Your task to perform on an android device: turn on airplane mode Image 0: 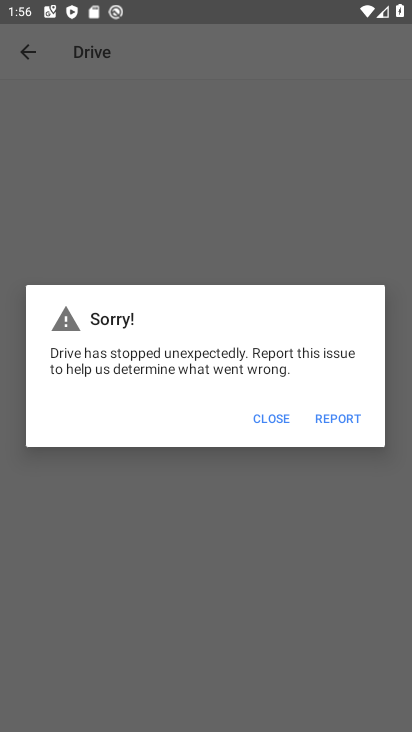
Step 0: drag from (293, 614) to (327, 107)
Your task to perform on an android device: turn on airplane mode Image 1: 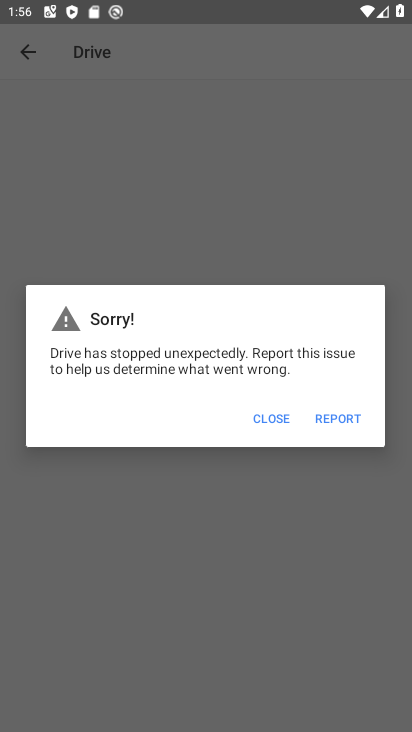
Step 1: press home button
Your task to perform on an android device: turn on airplane mode Image 2: 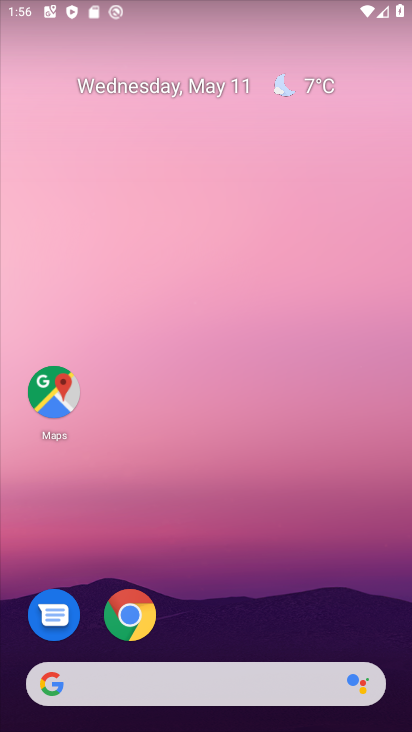
Step 2: drag from (265, 5) to (345, 636)
Your task to perform on an android device: turn on airplane mode Image 3: 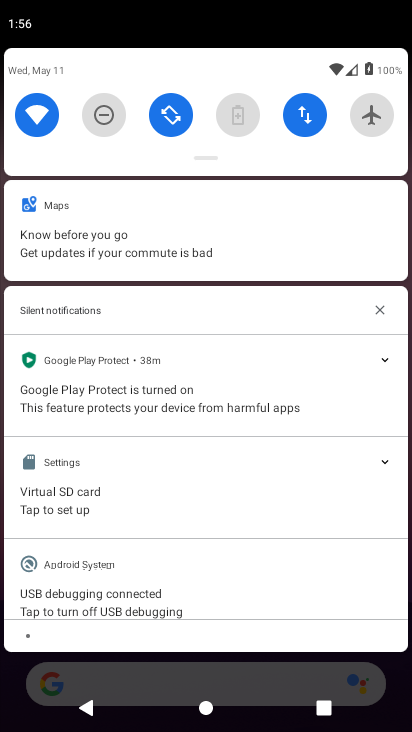
Step 3: click (371, 101)
Your task to perform on an android device: turn on airplane mode Image 4: 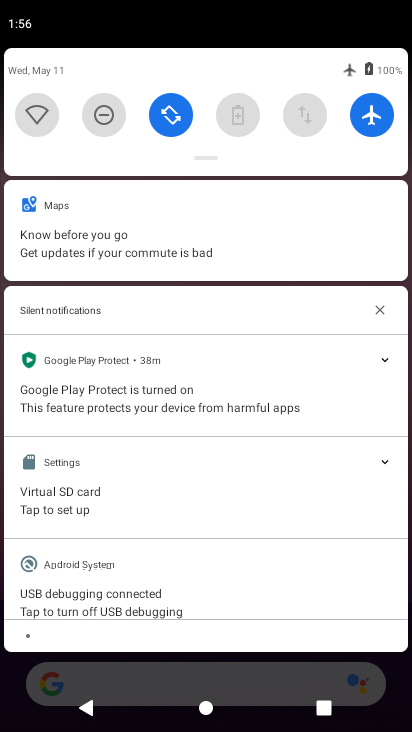
Step 4: task complete